Your task to perform on an android device: Open internet settings Image 0: 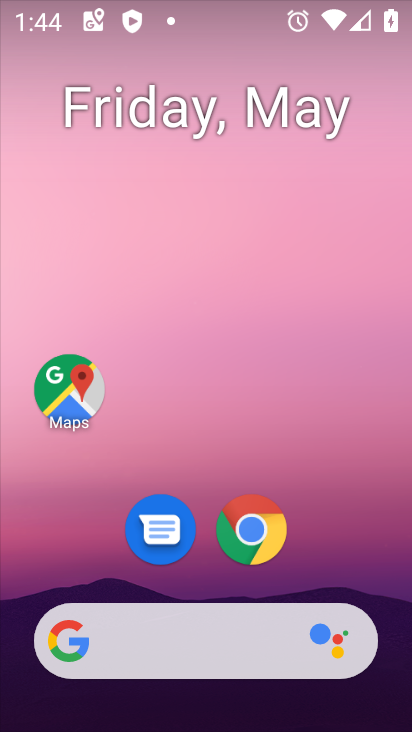
Step 0: drag from (401, 636) to (404, 247)
Your task to perform on an android device: Open internet settings Image 1: 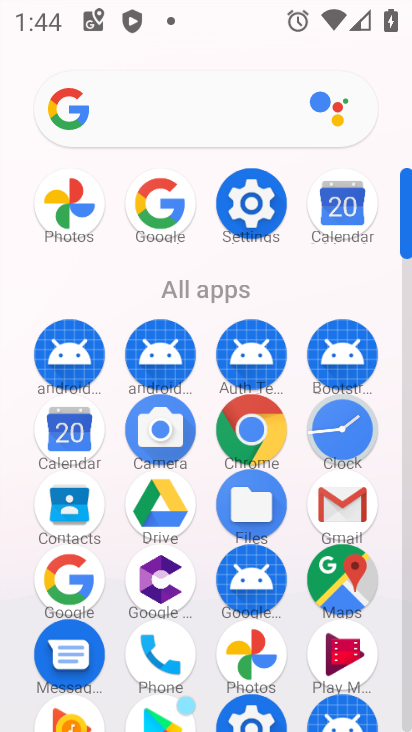
Step 1: click (269, 195)
Your task to perform on an android device: Open internet settings Image 2: 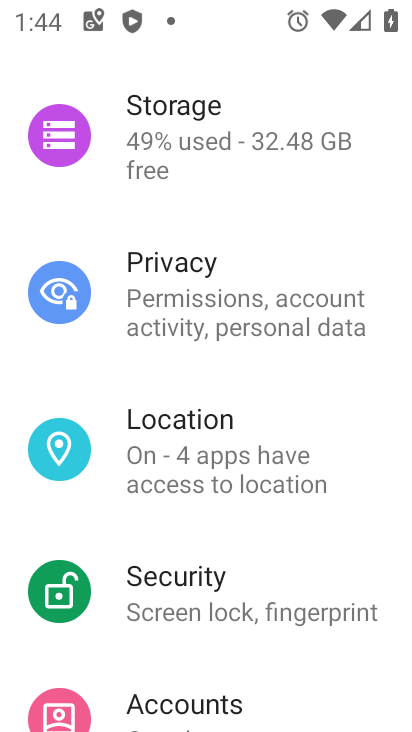
Step 2: drag from (359, 105) to (365, 566)
Your task to perform on an android device: Open internet settings Image 3: 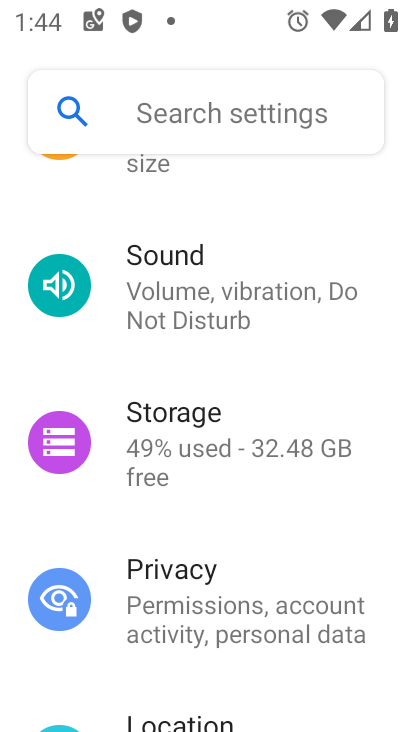
Step 3: drag from (354, 246) to (357, 688)
Your task to perform on an android device: Open internet settings Image 4: 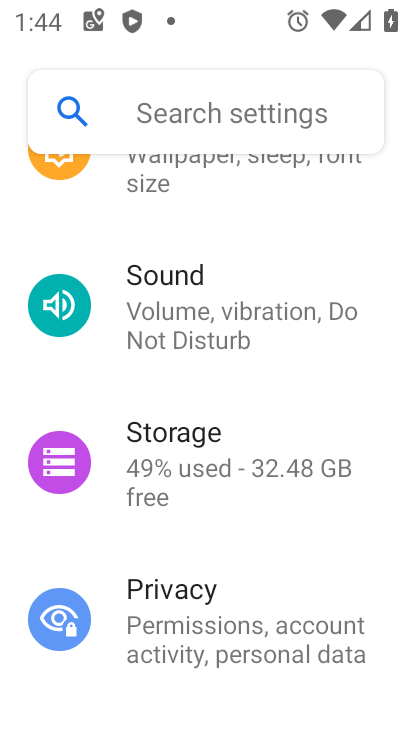
Step 4: drag from (335, 221) to (346, 556)
Your task to perform on an android device: Open internet settings Image 5: 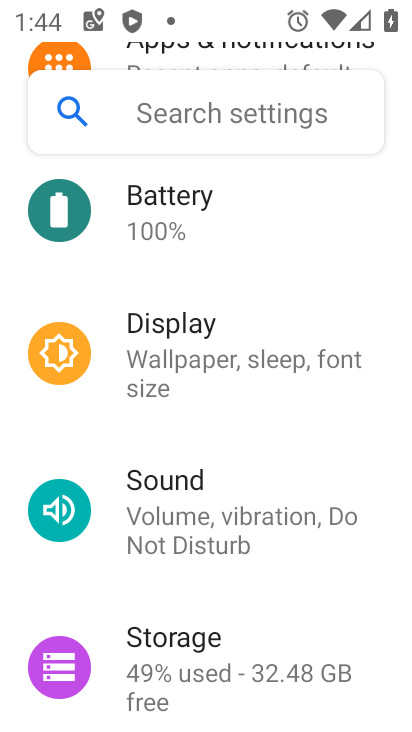
Step 5: drag from (326, 187) to (369, 626)
Your task to perform on an android device: Open internet settings Image 6: 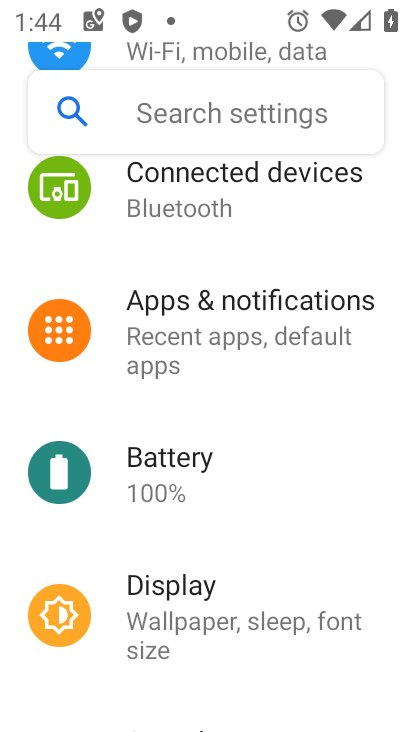
Step 6: click (359, 687)
Your task to perform on an android device: Open internet settings Image 7: 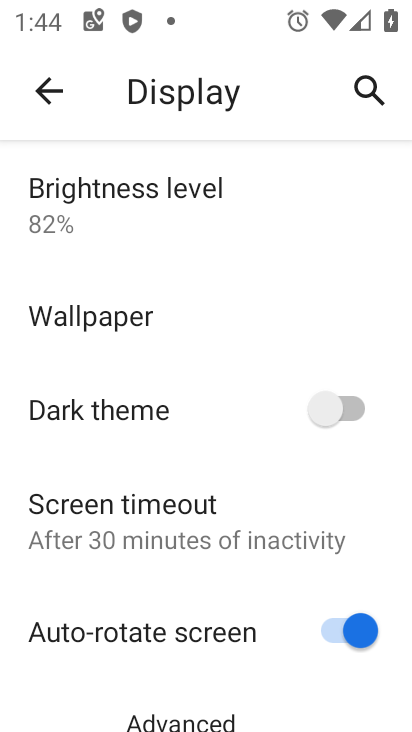
Step 7: click (53, 89)
Your task to perform on an android device: Open internet settings Image 8: 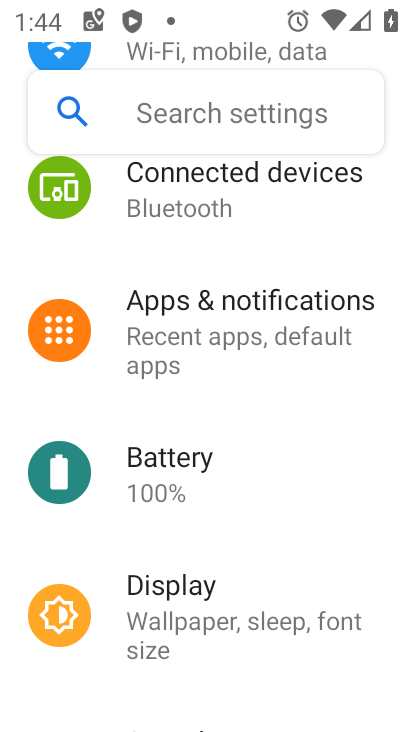
Step 8: drag from (330, 329) to (351, 508)
Your task to perform on an android device: Open internet settings Image 9: 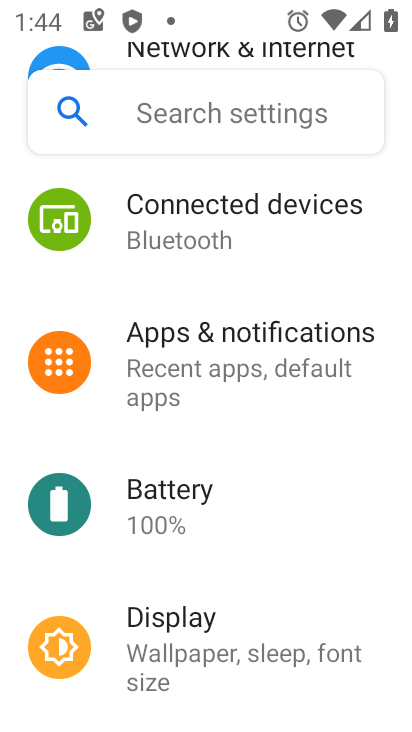
Step 9: click (196, 50)
Your task to perform on an android device: Open internet settings Image 10: 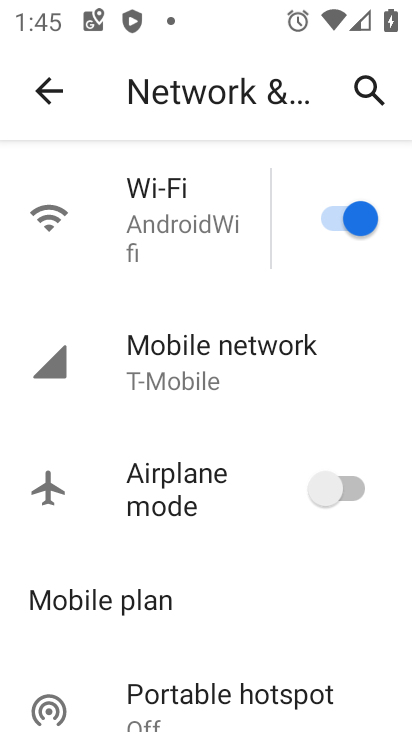
Step 10: click (161, 361)
Your task to perform on an android device: Open internet settings Image 11: 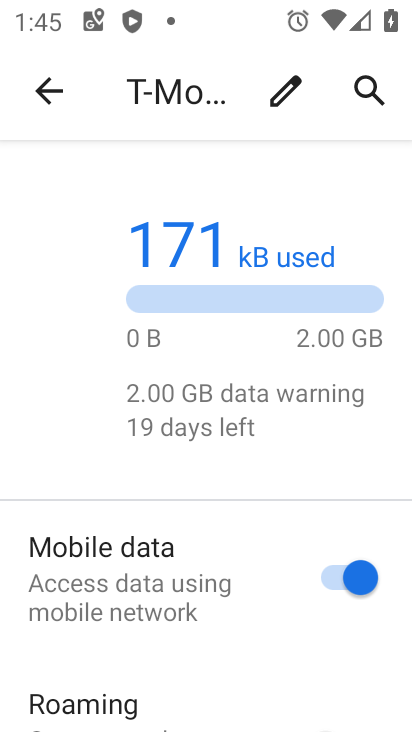
Step 11: task complete